Your task to perform on an android device: Go to sound settings Image 0: 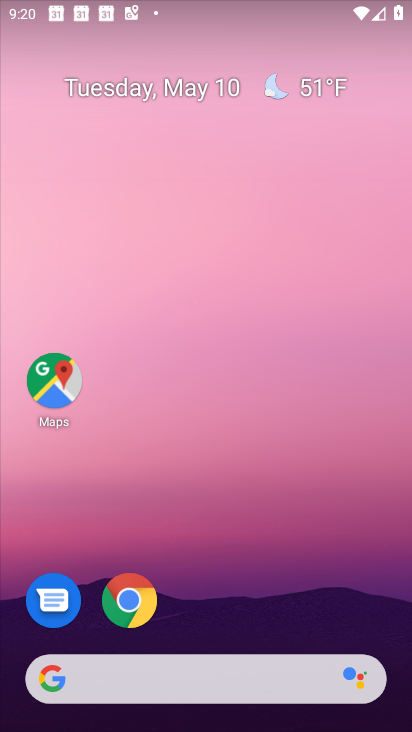
Step 0: drag from (247, 596) to (258, 215)
Your task to perform on an android device: Go to sound settings Image 1: 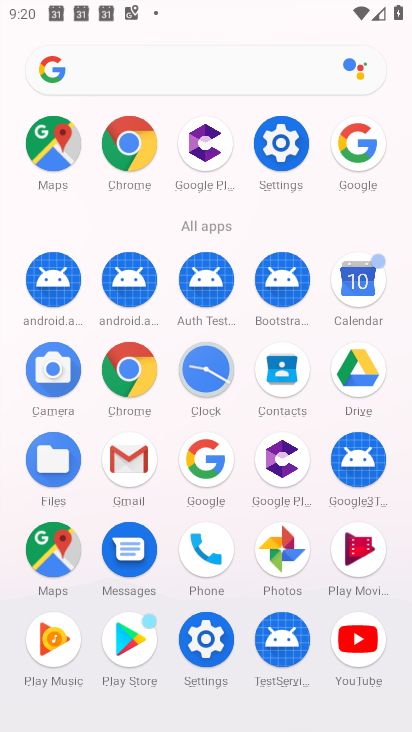
Step 1: click (207, 469)
Your task to perform on an android device: Go to sound settings Image 2: 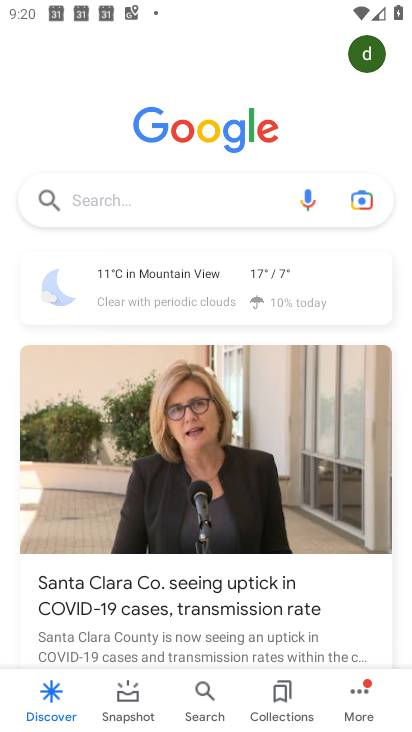
Step 2: press home button
Your task to perform on an android device: Go to sound settings Image 3: 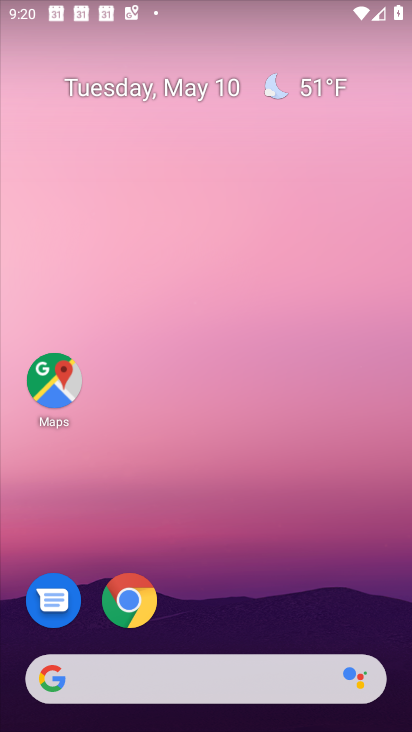
Step 3: drag from (233, 599) to (239, 215)
Your task to perform on an android device: Go to sound settings Image 4: 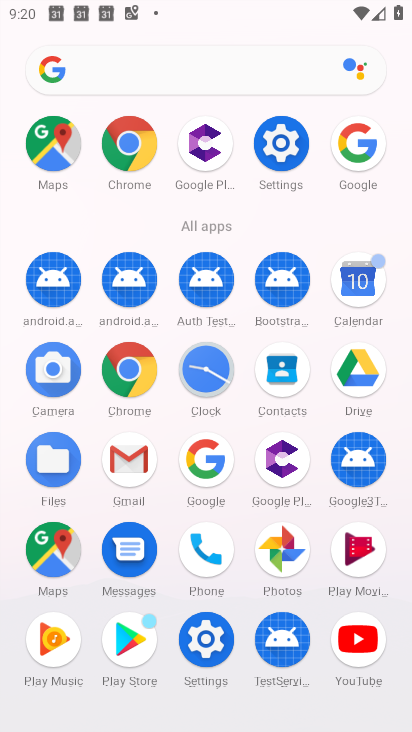
Step 4: click (279, 130)
Your task to perform on an android device: Go to sound settings Image 5: 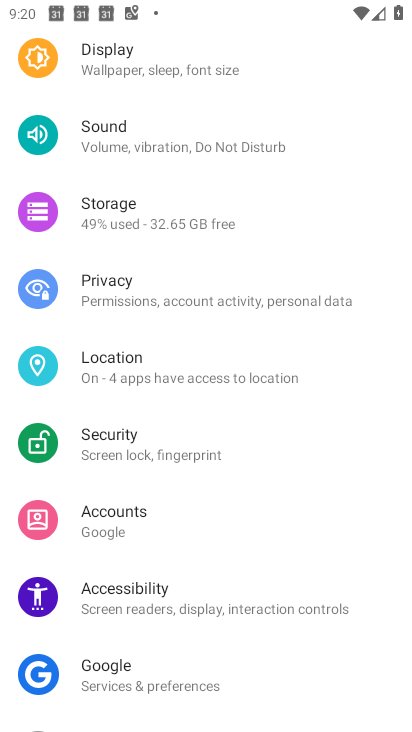
Step 5: click (159, 147)
Your task to perform on an android device: Go to sound settings Image 6: 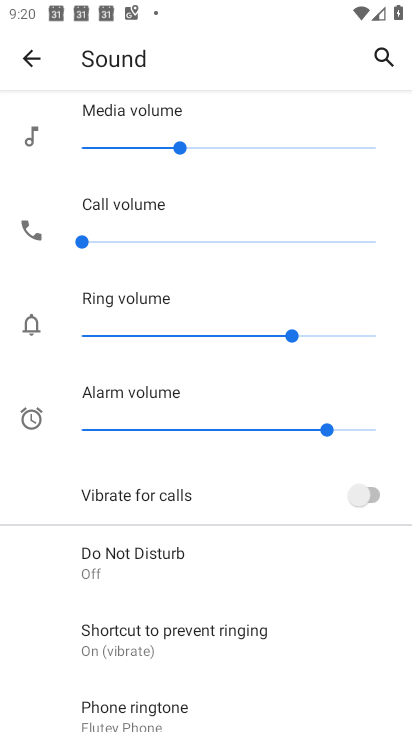
Step 6: task complete